Your task to perform on an android device: turn off data saver in the chrome app Image 0: 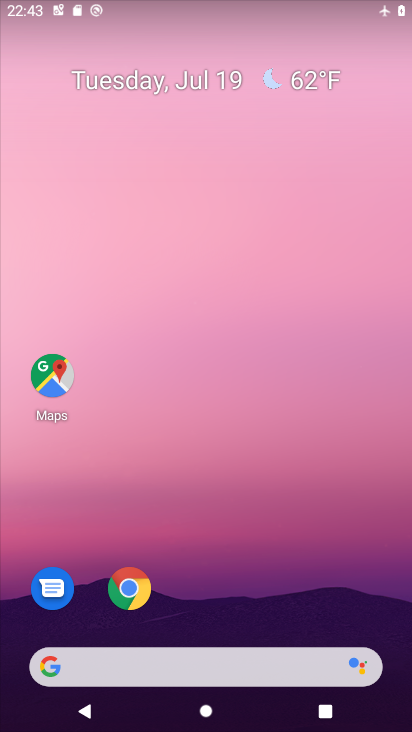
Step 0: click (124, 590)
Your task to perform on an android device: turn off data saver in the chrome app Image 1: 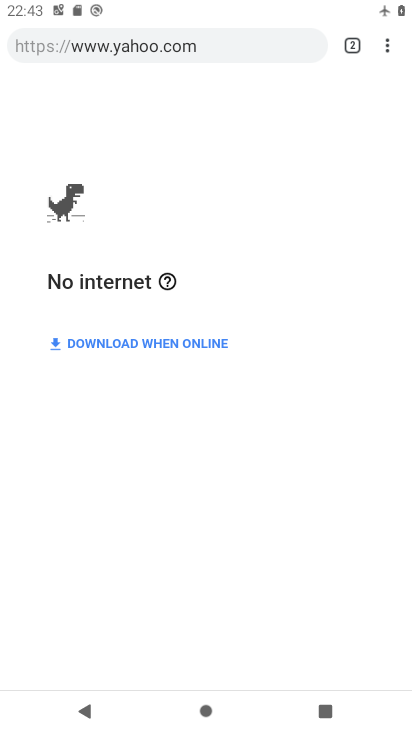
Step 1: click (390, 40)
Your task to perform on an android device: turn off data saver in the chrome app Image 2: 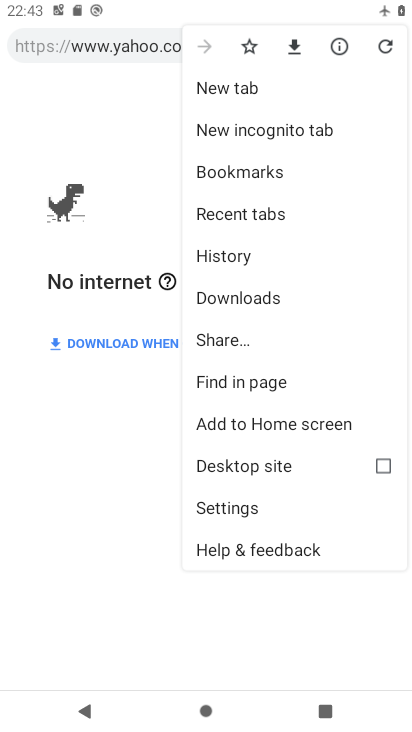
Step 2: click (227, 511)
Your task to perform on an android device: turn off data saver in the chrome app Image 3: 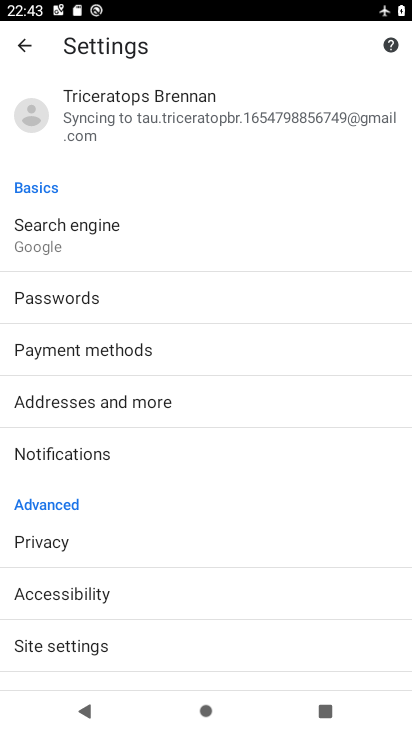
Step 3: drag from (156, 588) to (179, 396)
Your task to perform on an android device: turn off data saver in the chrome app Image 4: 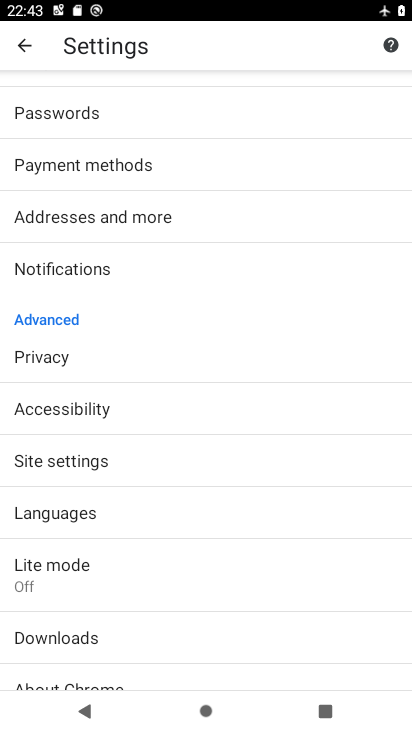
Step 4: click (48, 572)
Your task to perform on an android device: turn off data saver in the chrome app Image 5: 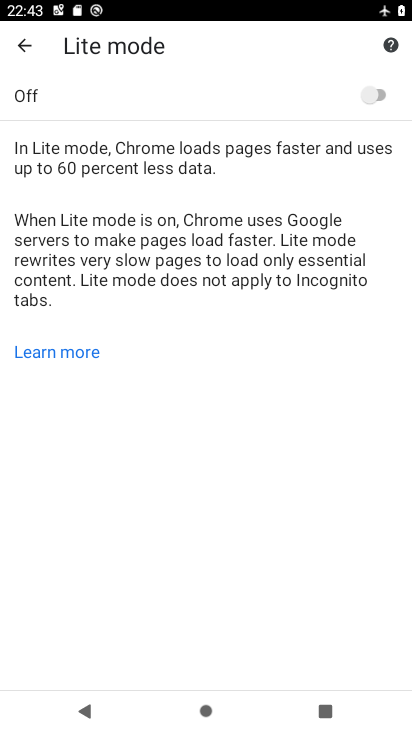
Step 5: task complete